Your task to perform on an android device: move an email to a new category in the gmail app Image 0: 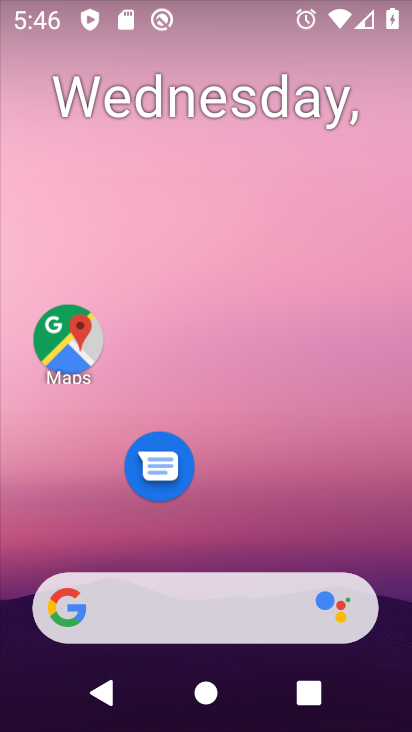
Step 0: drag from (300, 534) to (263, 143)
Your task to perform on an android device: move an email to a new category in the gmail app Image 1: 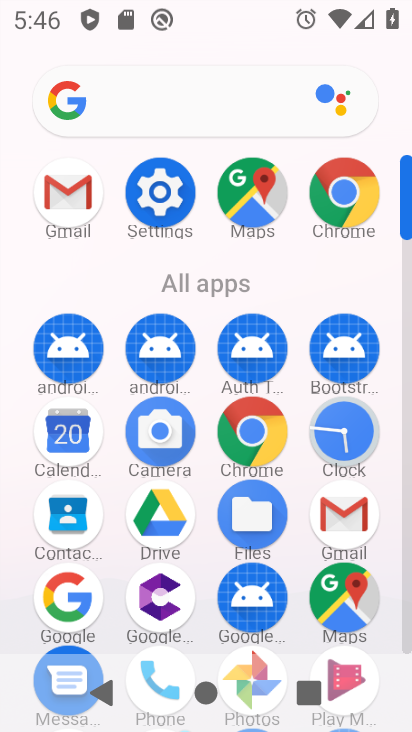
Step 1: click (70, 198)
Your task to perform on an android device: move an email to a new category in the gmail app Image 2: 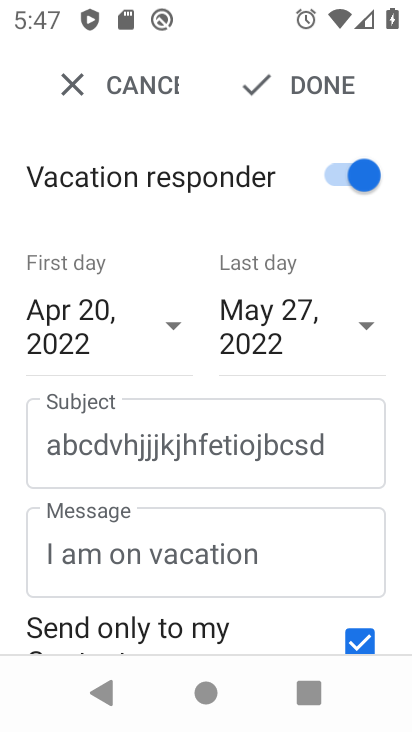
Step 2: click (81, 83)
Your task to perform on an android device: move an email to a new category in the gmail app Image 3: 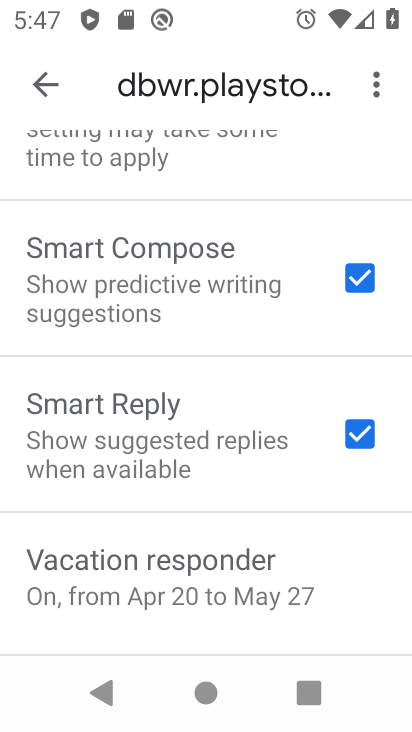
Step 3: press back button
Your task to perform on an android device: move an email to a new category in the gmail app Image 4: 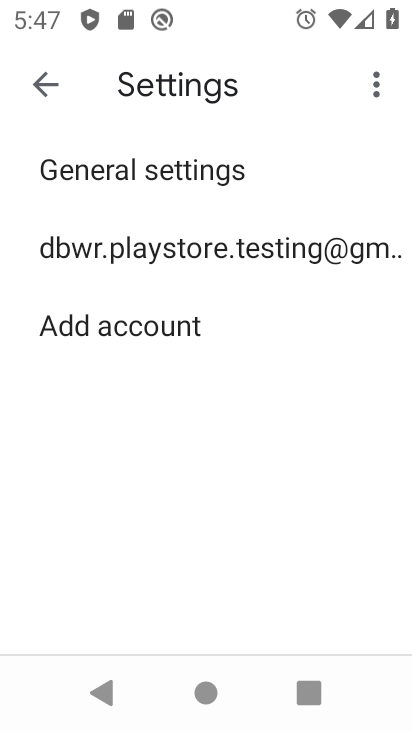
Step 4: press back button
Your task to perform on an android device: move an email to a new category in the gmail app Image 5: 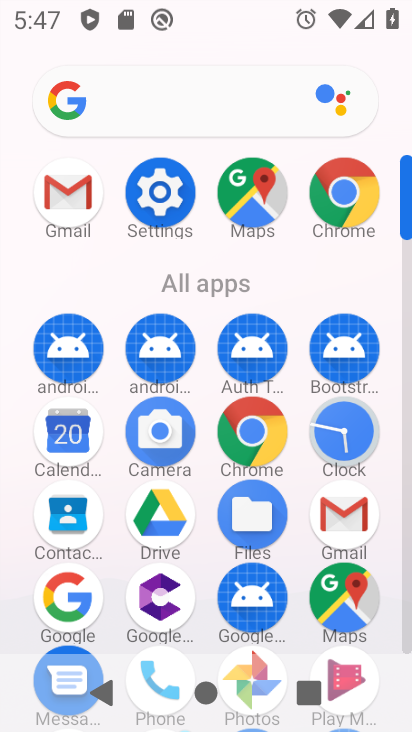
Step 5: click (338, 498)
Your task to perform on an android device: move an email to a new category in the gmail app Image 6: 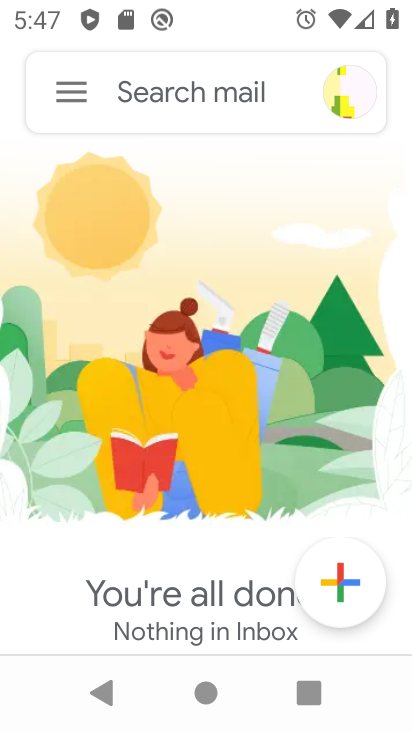
Step 6: task complete